Your task to perform on an android device: turn off location history Image 0: 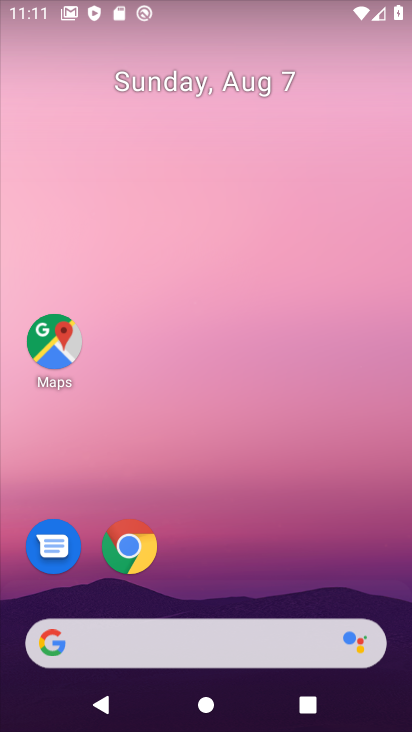
Step 0: drag from (229, 532) to (229, 267)
Your task to perform on an android device: turn off location history Image 1: 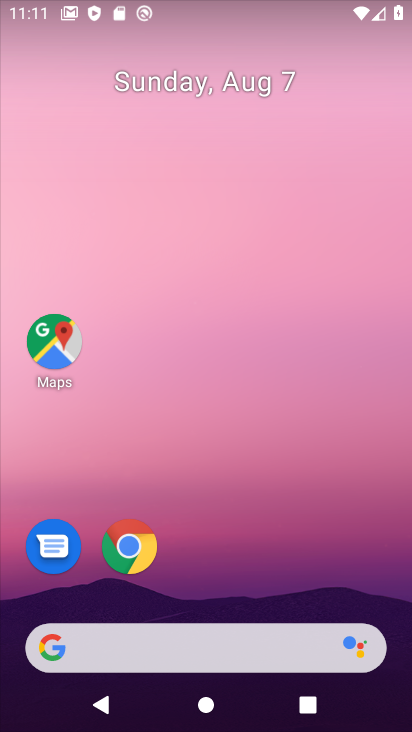
Step 1: click (148, 303)
Your task to perform on an android device: turn off location history Image 2: 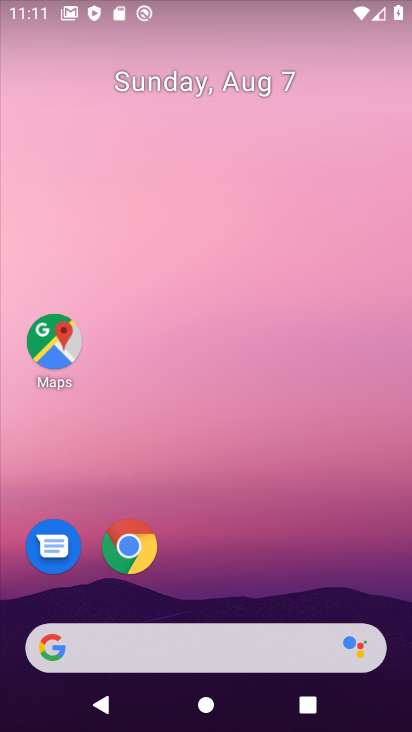
Step 2: drag from (211, 492) to (163, 270)
Your task to perform on an android device: turn off location history Image 3: 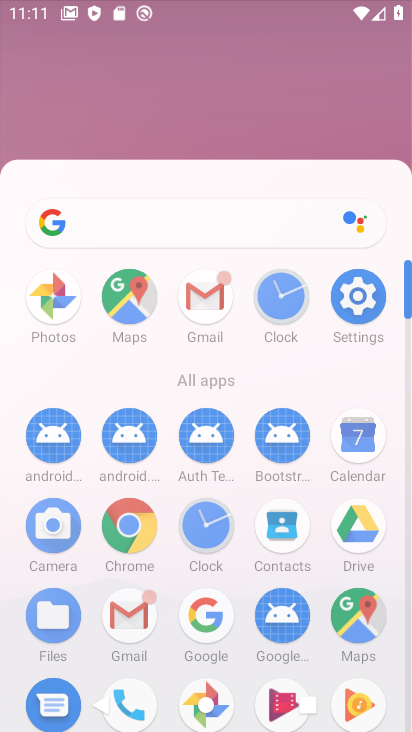
Step 3: drag from (148, 377) to (133, 179)
Your task to perform on an android device: turn off location history Image 4: 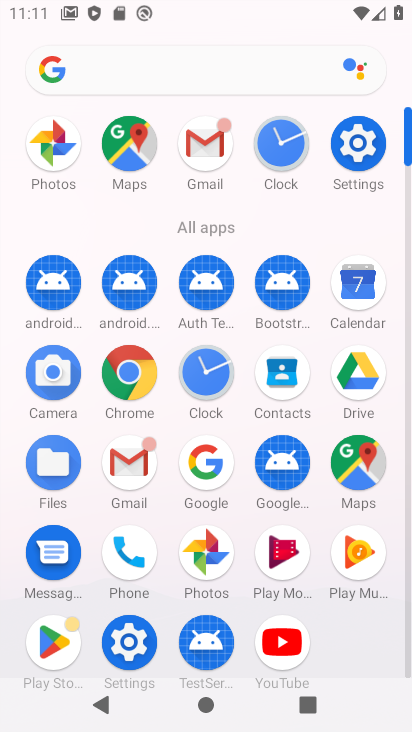
Step 4: drag from (207, 539) to (182, 224)
Your task to perform on an android device: turn off location history Image 5: 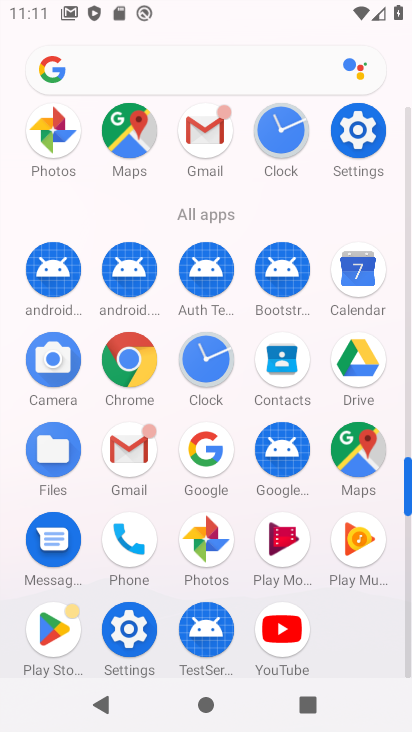
Step 5: click (367, 140)
Your task to perform on an android device: turn off location history Image 6: 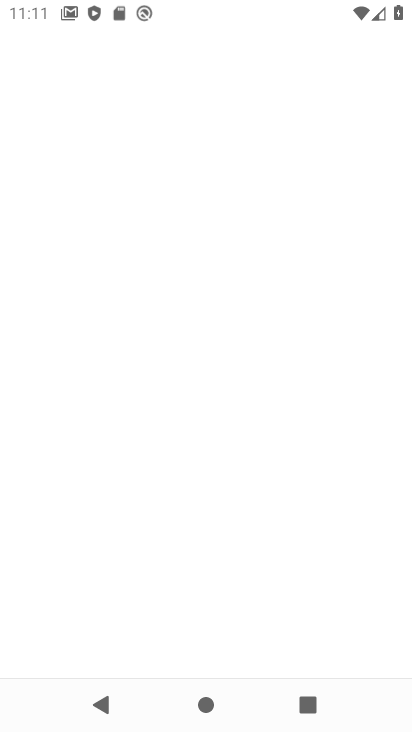
Step 6: click (363, 145)
Your task to perform on an android device: turn off location history Image 7: 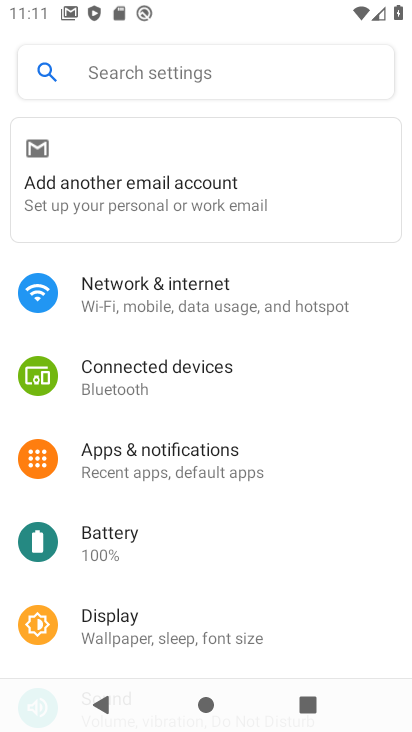
Step 7: drag from (143, 561) to (108, 315)
Your task to perform on an android device: turn off location history Image 8: 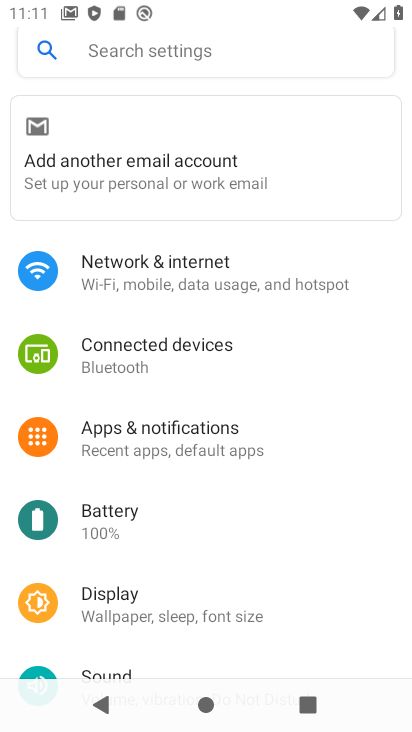
Step 8: drag from (149, 589) to (123, 289)
Your task to perform on an android device: turn off location history Image 9: 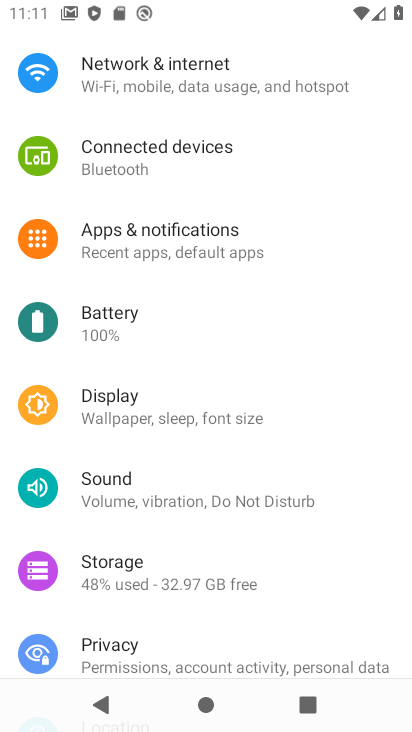
Step 9: click (116, 347)
Your task to perform on an android device: turn off location history Image 10: 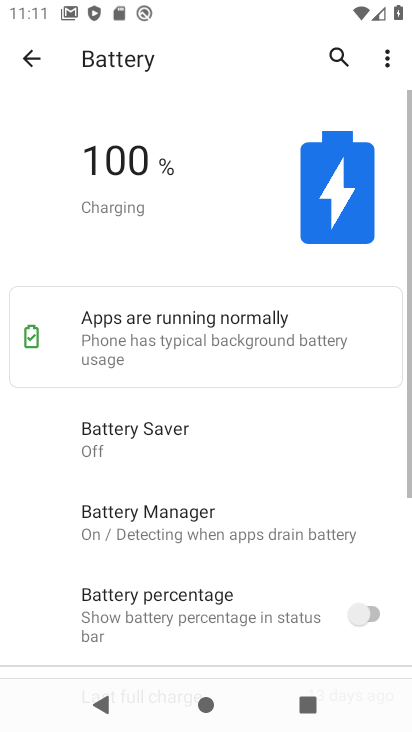
Step 10: click (30, 73)
Your task to perform on an android device: turn off location history Image 11: 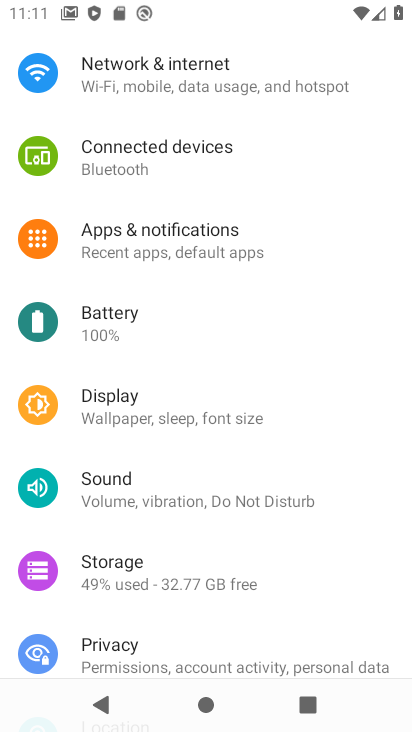
Step 11: drag from (150, 450) to (123, 258)
Your task to perform on an android device: turn off location history Image 12: 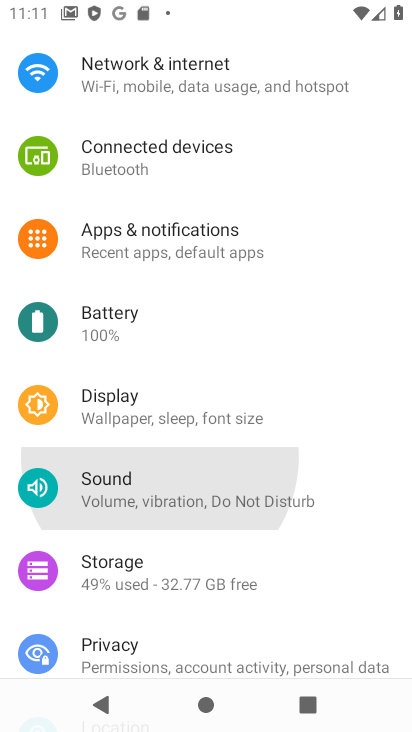
Step 12: drag from (191, 480) to (176, 291)
Your task to perform on an android device: turn off location history Image 13: 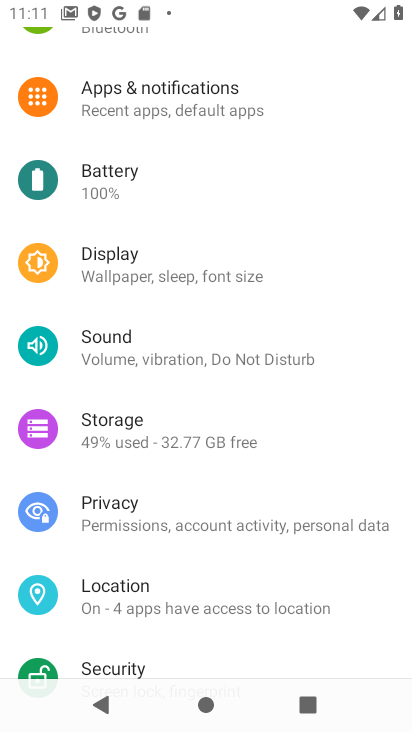
Step 13: click (136, 601)
Your task to perform on an android device: turn off location history Image 14: 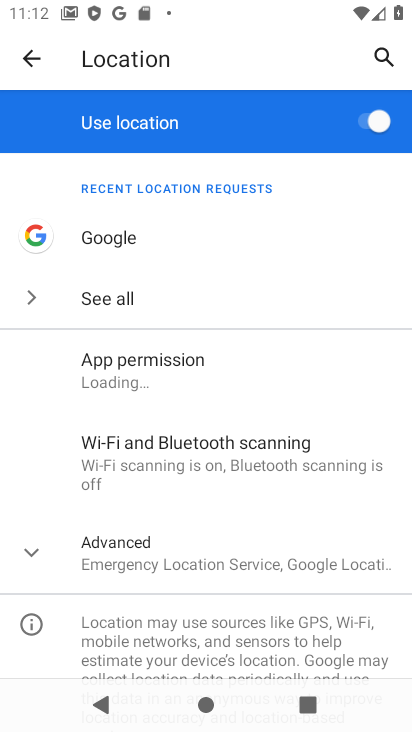
Step 14: click (384, 111)
Your task to perform on an android device: turn off location history Image 15: 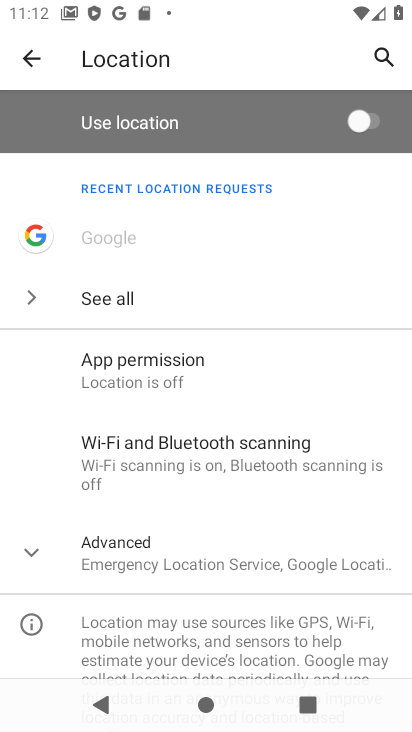
Step 15: task complete